Your task to perform on an android device: Open Amazon Image 0: 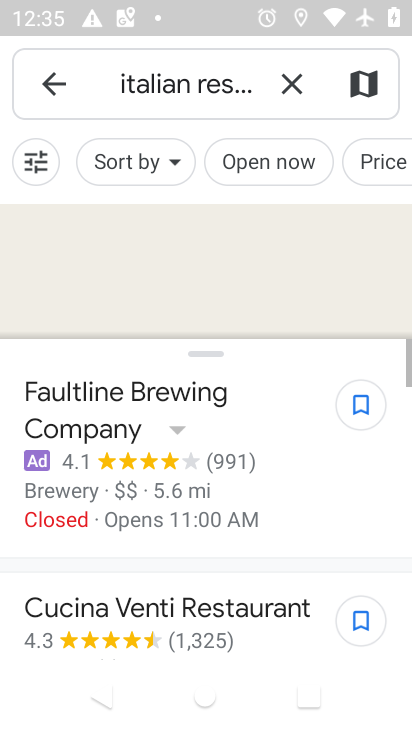
Step 0: press back button
Your task to perform on an android device: Open Amazon Image 1: 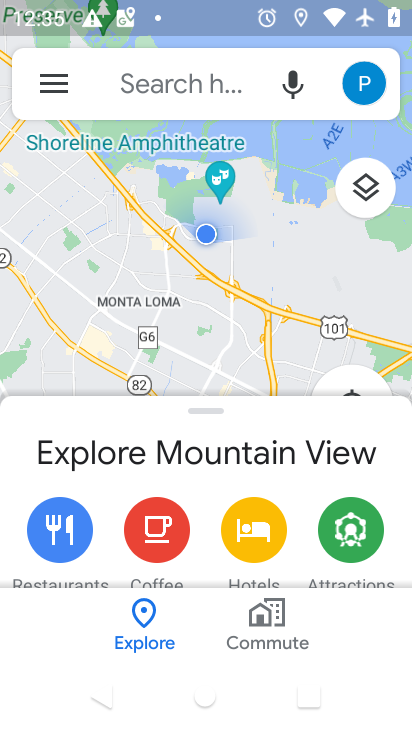
Step 1: press back button
Your task to perform on an android device: Open Amazon Image 2: 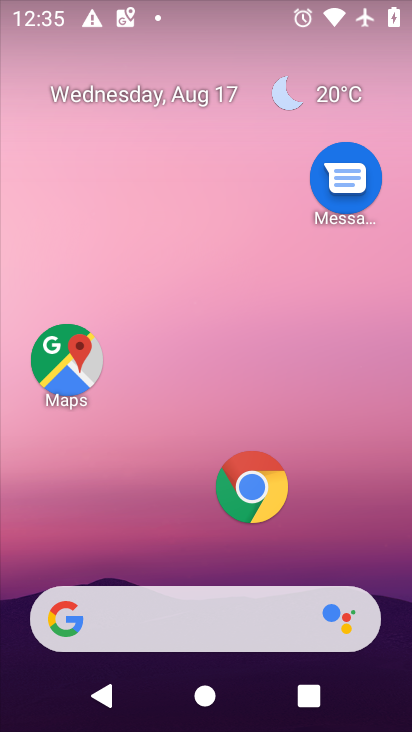
Step 2: click (260, 470)
Your task to perform on an android device: Open Amazon Image 3: 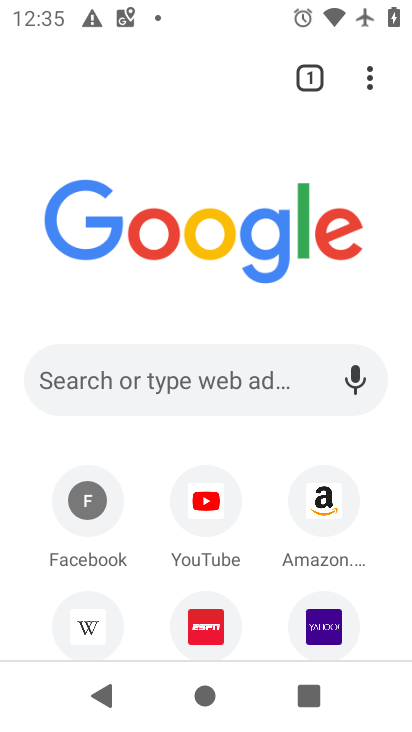
Step 3: click (321, 490)
Your task to perform on an android device: Open Amazon Image 4: 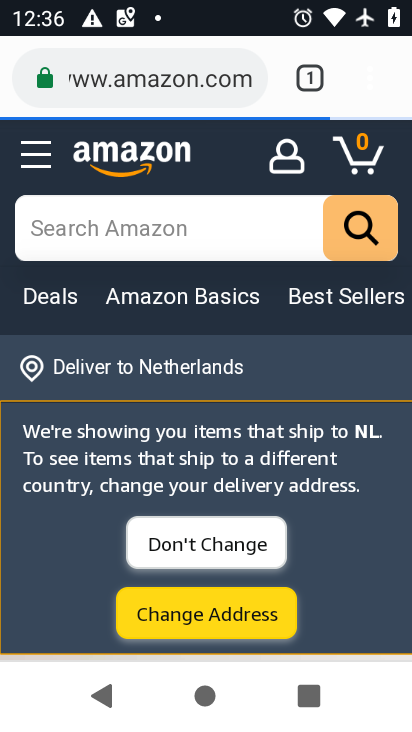
Step 4: task complete